Your task to perform on an android device: Open network settings Image 0: 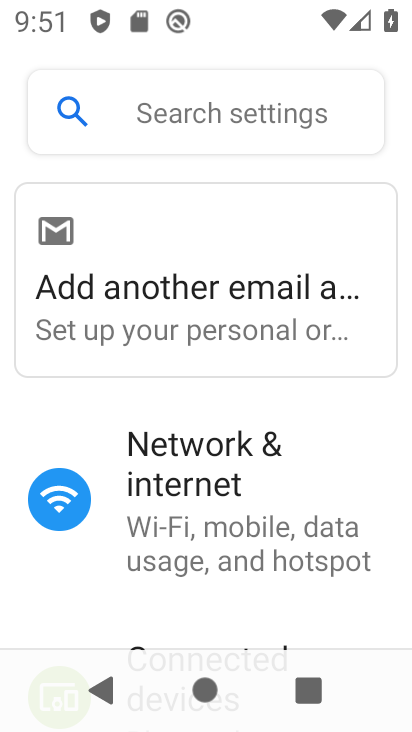
Step 0: click (216, 538)
Your task to perform on an android device: Open network settings Image 1: 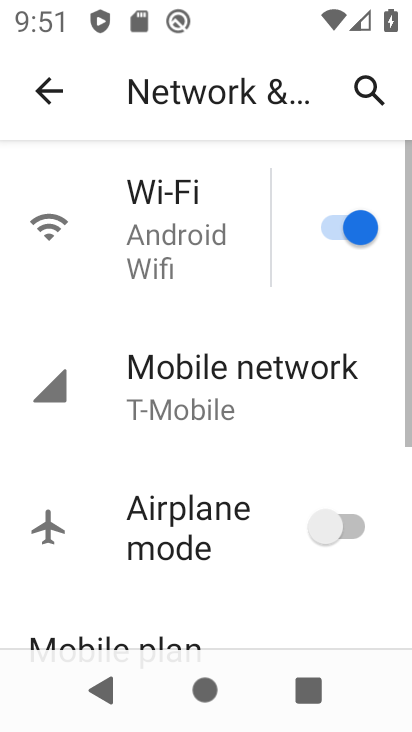
Step 1: click (290, 392)
Your task to perform on an android device: Open network settings Image 2: 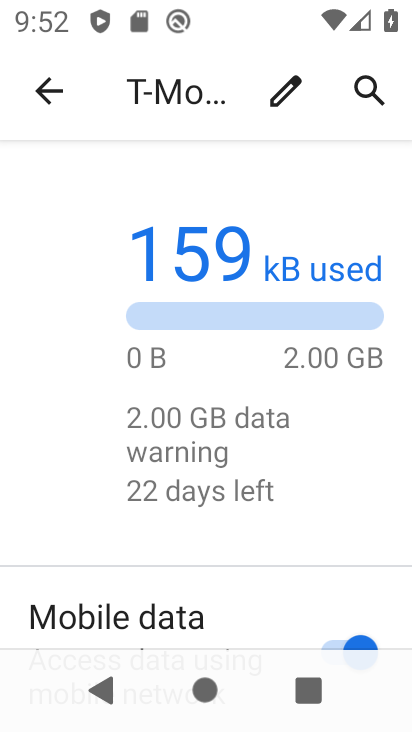
Step 2: task complete